Your task to perform on an android device: turn on javascript in the chrome app Image 0: 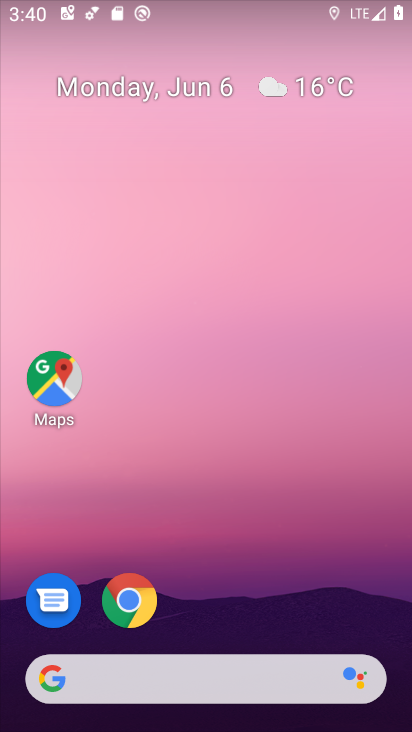
Step 0: click (180, 53)
Your task to perform on an android device: turn on javascript in the chrome app Image 1: 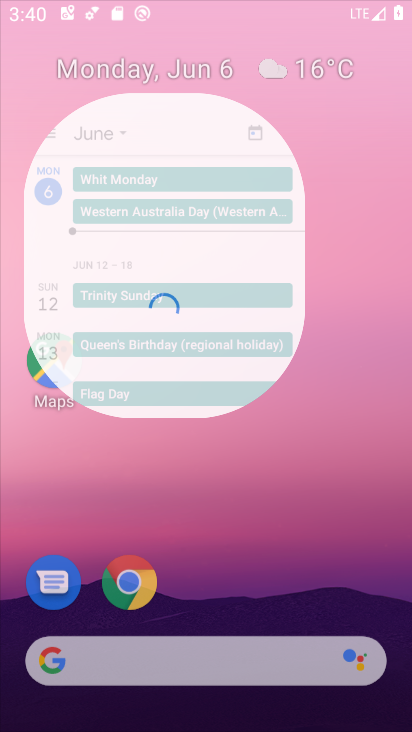
Step 1: click (112, 51)
Your task to perform on an android device: turn on javascript in the chrome app Image 2: 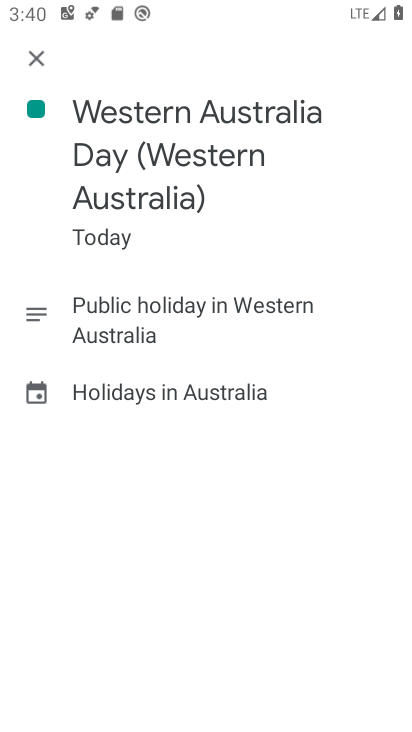
Step 2: task complete